Your task to perform on an android device: turn off priority inbox in the gmail app Image 0: 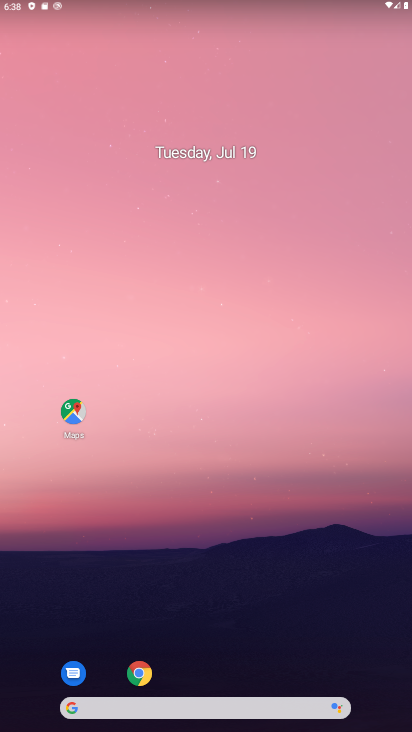
Step 0: drag from (337, 686) to (223, 4)
Your task to perform on an android device: turn off priority inbox in the gmail app Image 1: 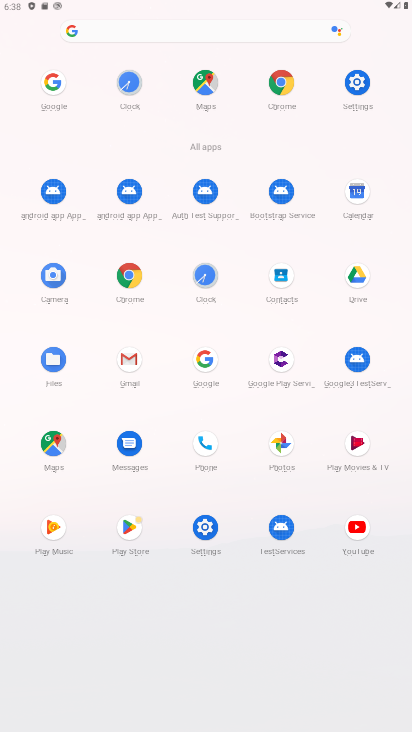
Step 1: click (116, 374)
Your task to perform on an android device: turn off priority inbox in the gmail app Image 2: 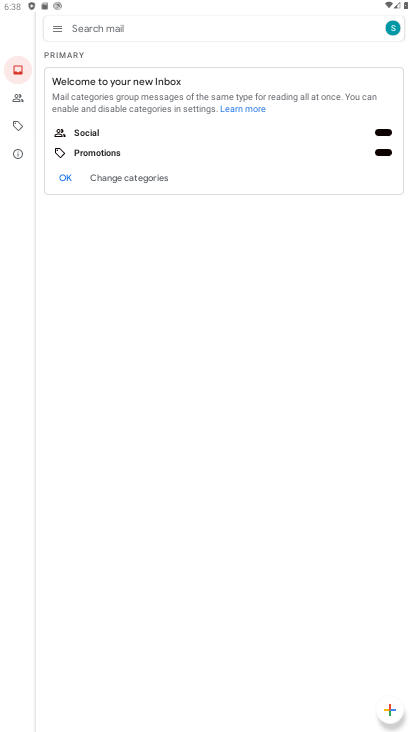
Step 2: click (54, 28)
Your task to perform on an android device: turn off priority inbox in the gmail app Image 3: 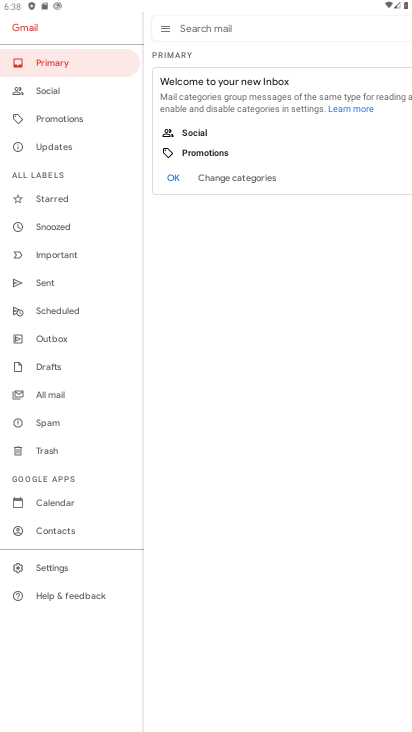
Step 3: click (68, 569)
Your task to perform on an android device: turn off priority inbox in the gmail app Image 4: 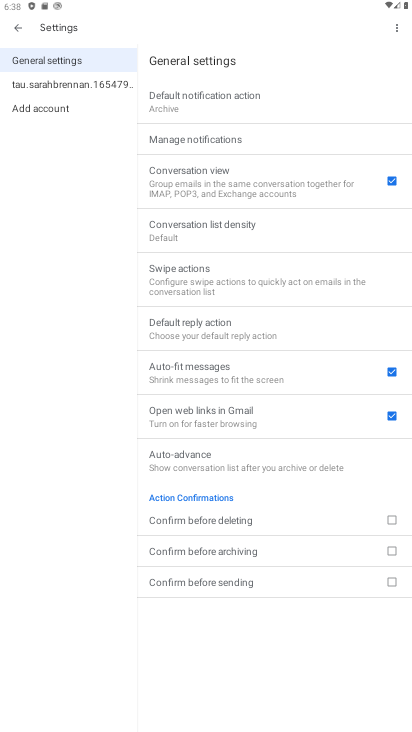
Step 4: click (60, 80)
Your task to perform on an android device: turn off priority inbox in the gmail app Image 5: 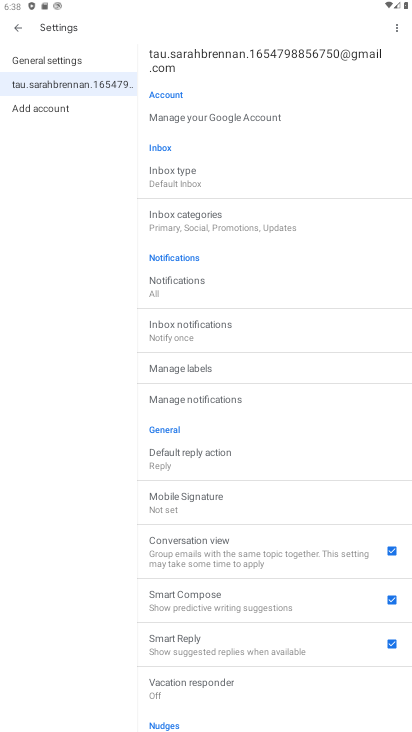
Step 5: click (192, 187)
Your task to perform on an android device: turn off priority inbox in the gmail app Image 6: 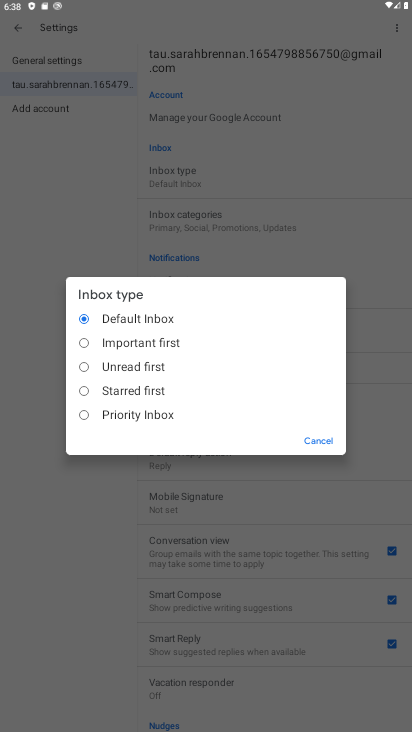
Step 6: task complete